Your task to perform on an android device: change notification settings in the gmail app Image 0: 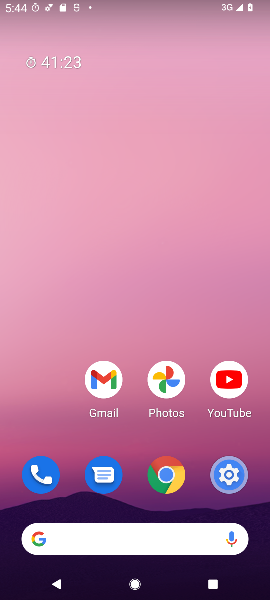
Step 0: press home button
Your task to perform on an android device: change notification settings in the gmail app Image 1: 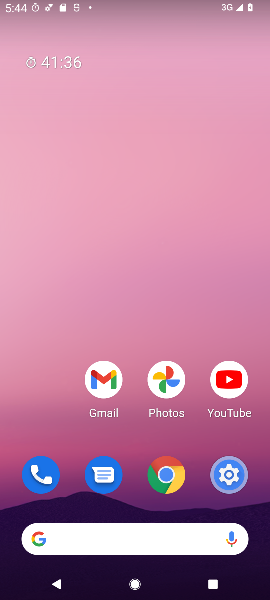
Step 1: drag from (64, 445) to (70, 168)
Your task to perform on an android device: change notification settings in the gmail app Image 2: 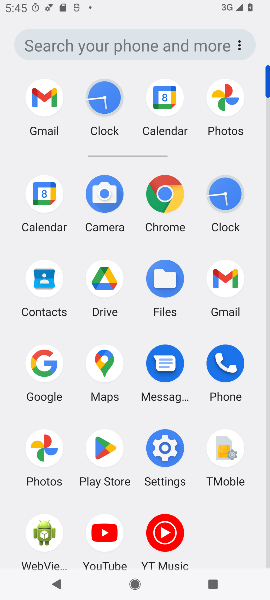
Step 2: click (227, 281)
Your task to perform on an android device: change notification settings in the gmail app Image 3: 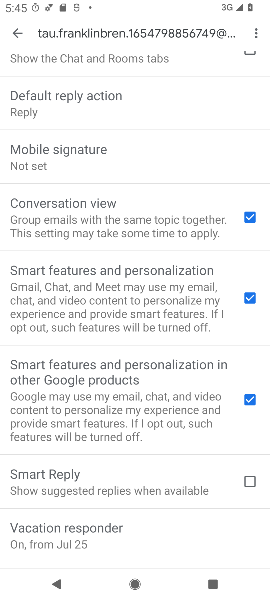
Step 3: drag from (143, 156) to (157, 270)
Your task to perform on an android device: change notification settings in the gmail app Image 4: 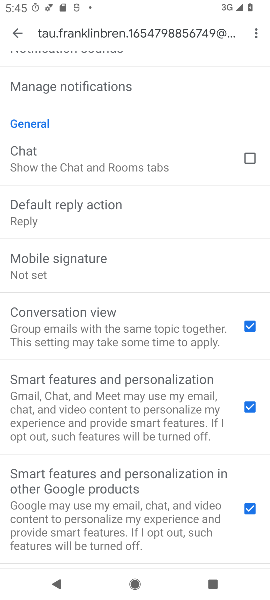
Step 4: drag from (183, 139) to (187, 248)
Your task to perform on an android device: change notification settings in the gmail app Image 5: 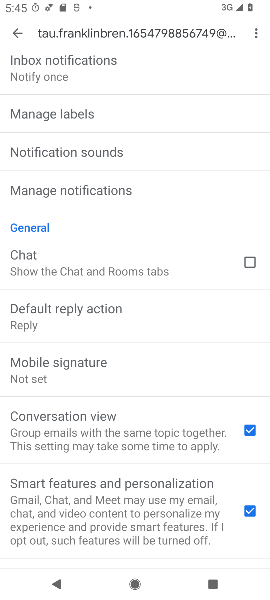
Step 5: drag from (189, 104) to (185, 205)
Your task to perform on an android device: change notification settings in the gmail app Image 6: 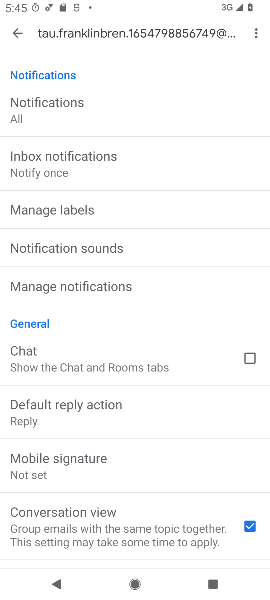
Step 6: drag from (187, 105) to (189, 218)
Your task to perform on an android device: change notification settings in the gmail app Image 7: 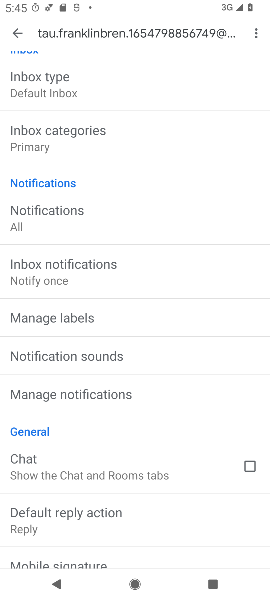
Step 7: drag from (194, 142) to (197, 246)
Your task to perform on an android device: change notification settings in the gmail app Image 8: 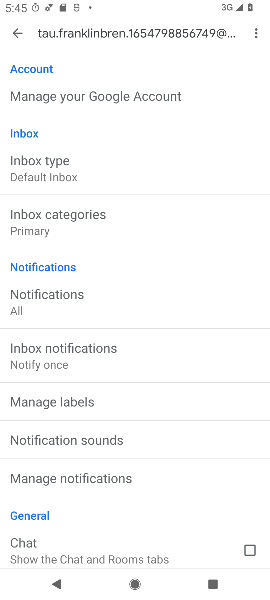
Step 8: drag from (195, 186) to (196, 239)
Your task to perform on an android device: change notification settings in the gmail app Image 9: 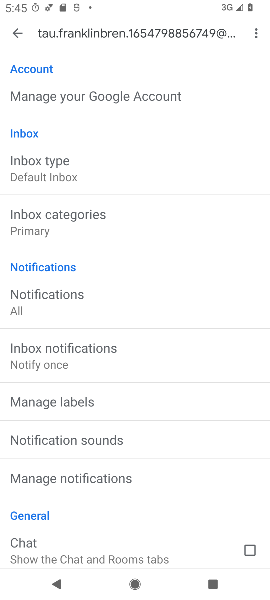
Step 9: drag from (193, 361) to (196, 305)
Your task to perform on an android device: change notification settings in the gmail app Image 10: 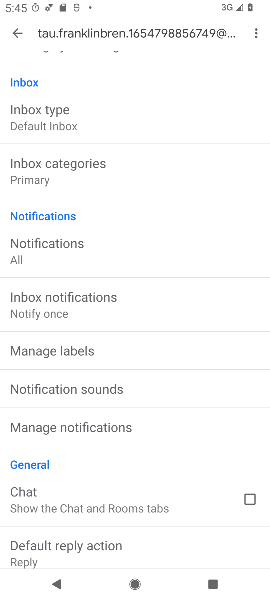
Step 10: drag from (183, 376) to (188, 279)
Your task to perform on an android device: change notification settings in the gmail app Image 11: 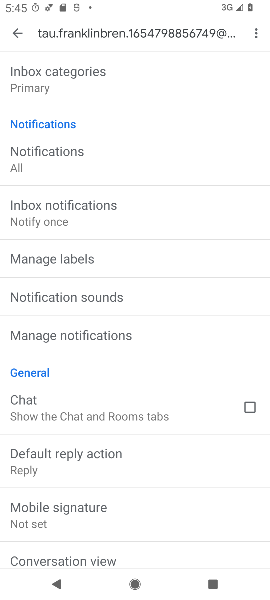
Step 11: click (180, 340)
Your task to perform on an android device: change notification settings in the gmail app Image 12: 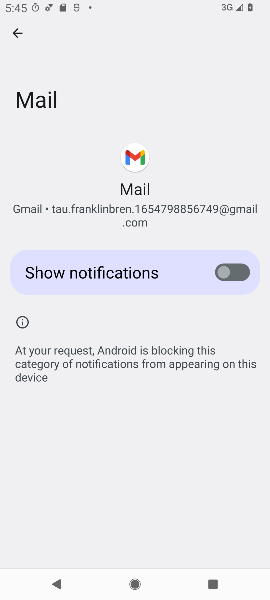
Step 12: click (232, 274)
Your task to perform on an android device: change notification settings in the gmail app Image 13: 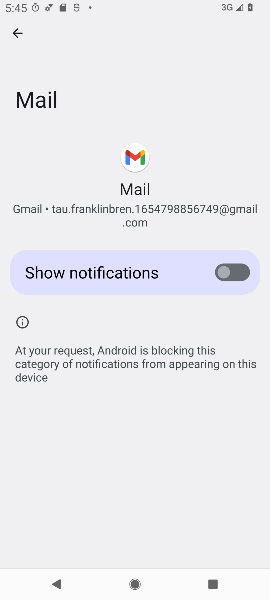
Step 13: click (222, 270)
Your task to perform on an android device: change notification settings in the gmail app Image 14: 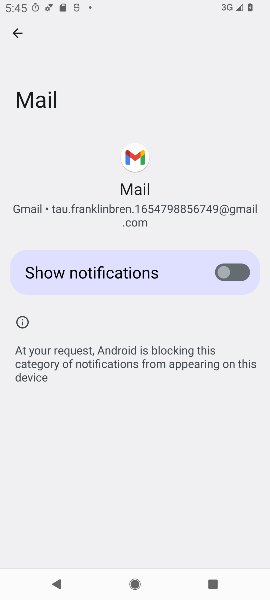
Step 14: task complete